Your task to perform on an android device: Open wifi settings Image 0: 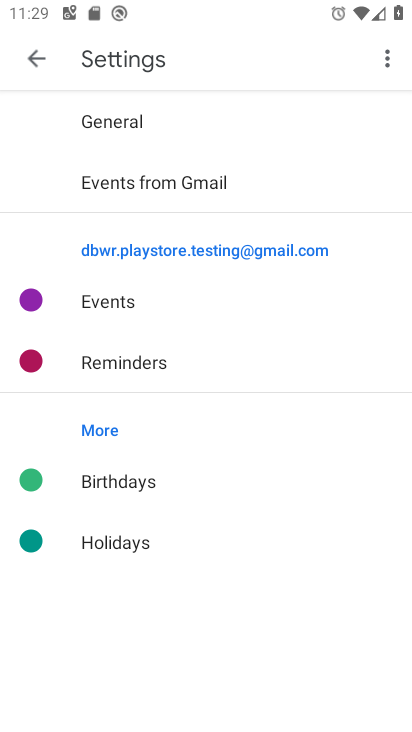
Step 0: press home button
Your task to perform on an android device: Open wifi settings Image 1: 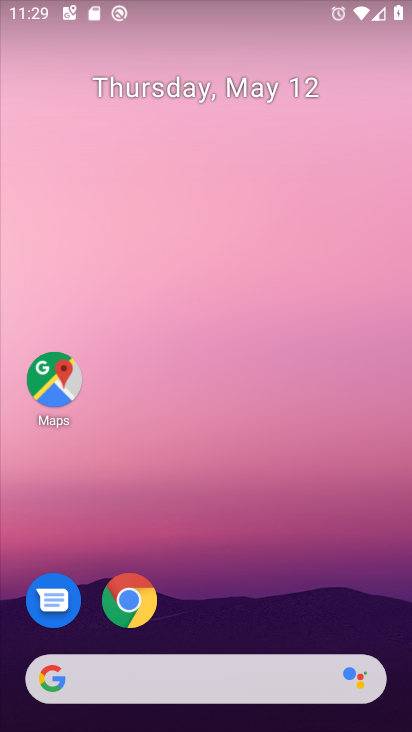
Step 1: drag from (248, 624) to (164, 199)
Your task to perform on an android device: Open wifi settings Image 2: 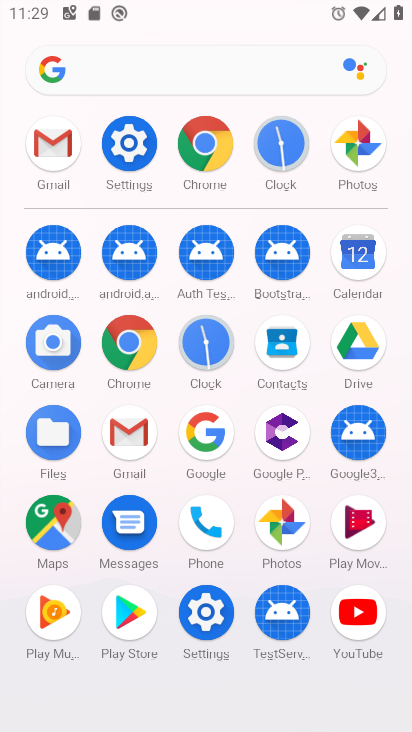
Step 2: click (128, 131)
Your task to perform on an android device: Open wifi settings Image 3: 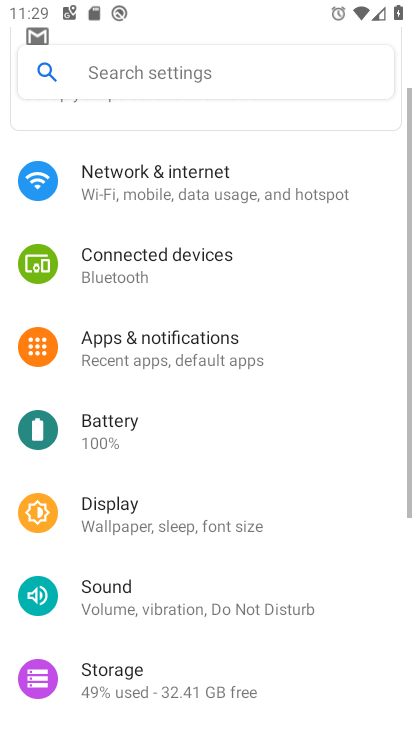
Step 3: drag from (134, 214) to (128, 389)
Your task to perform on an android device: Open wifi settings Image 4: 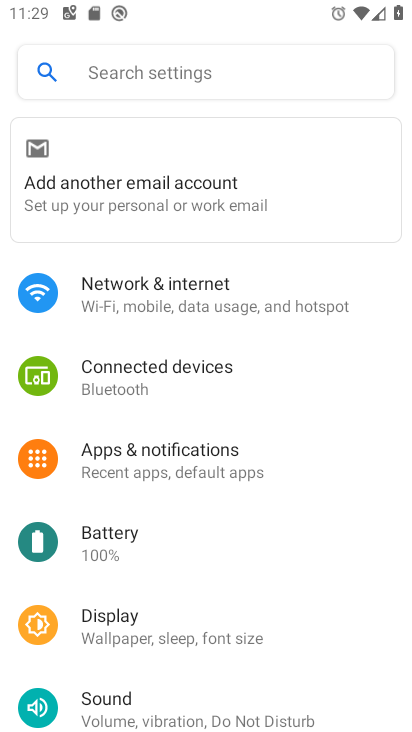
Step 4: click (106, 286)
Your task to perform on an android device: Open wifi settings Image 5: 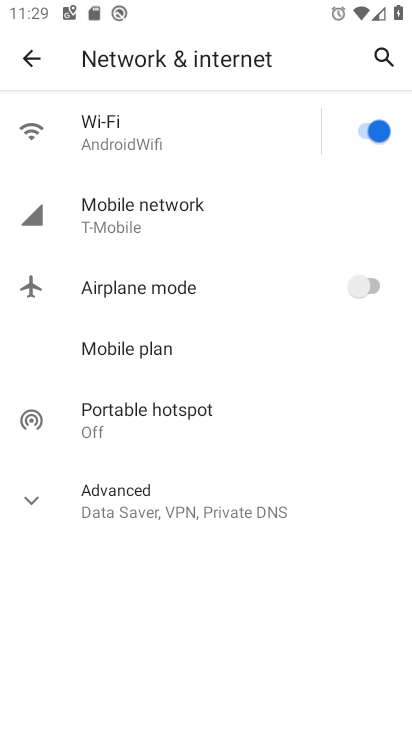
Step 5: click (81, 130)
Your task to perform on an android device: Open wifi settings Image 6: 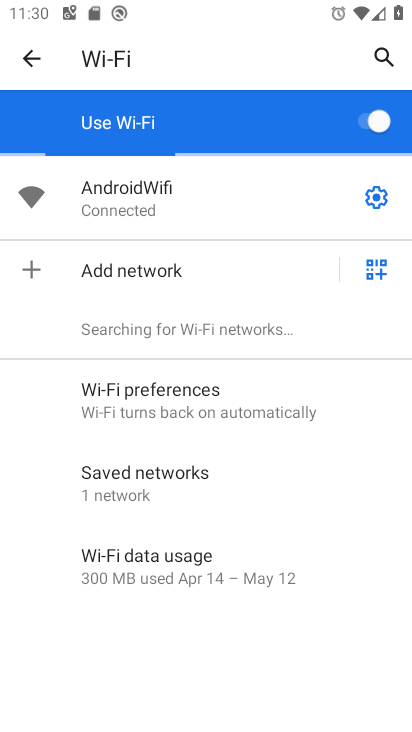
Step 6: task complete